Your task to perform on an android device: Open notification settings Image 0: 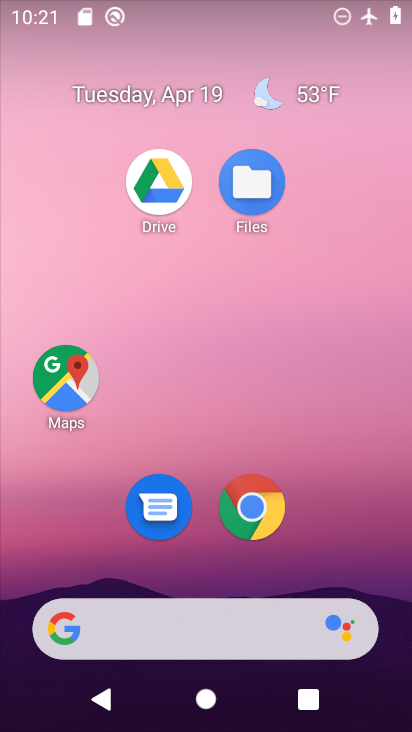
Step 0: drag from (349, 557) to (364, 110)
Your task to perform on an android device: Open notification settings Image 1: 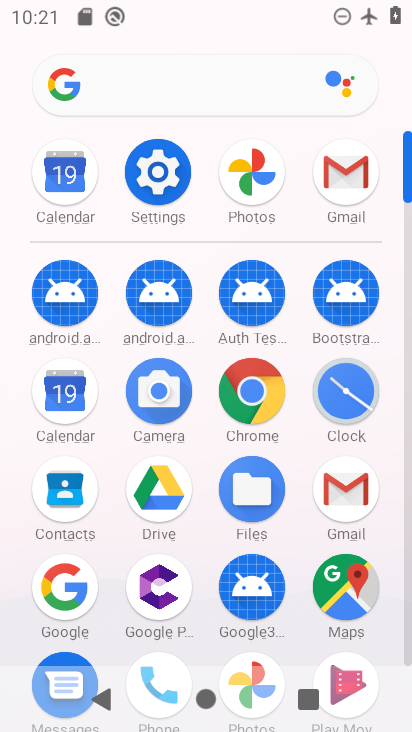
Step 1: click (166, 174)
Your task to perform on an android device: Open notification settings Image 2: 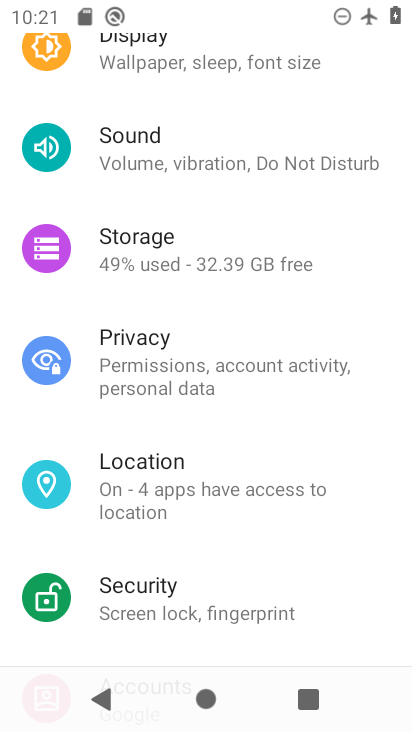
Step 2: drag from (198, 109) to (234, 569)
Your task to perform on an android device: Open notification settings Image 3: 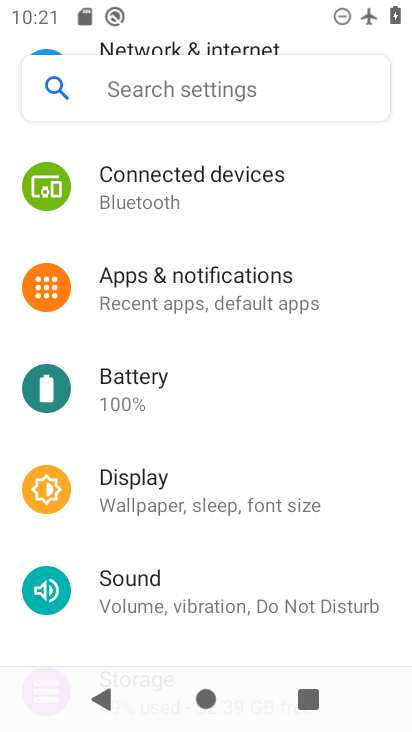
Step 3: click (272, 275)
Your task to perform on an android device: Open notification settings Image 4: 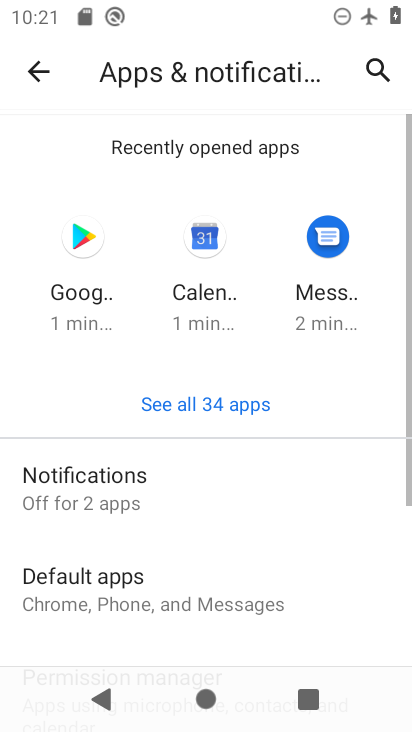
Step 4: task complete